Your task to perform on an android device: turn off notifications settings in the gmail app Image 0: 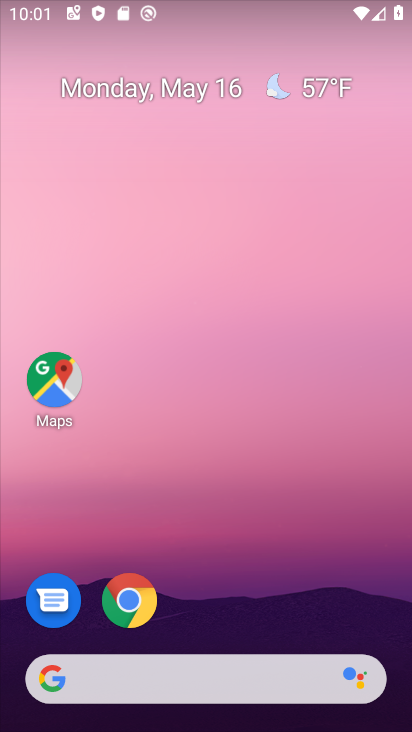
Step 0: drag from (372, 636) to (305, 53)
Your task to perform on an android device: turn off notifications settings in the gmail app Image 1: 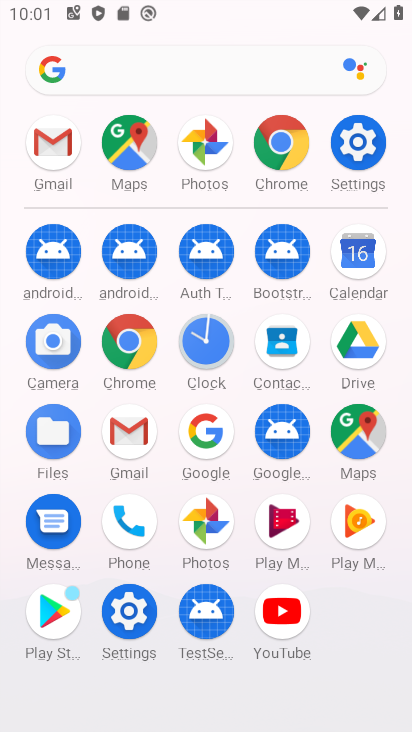
Step 1: click (344, 158)
Your task to perform on an android device: turn off notifications settings in the gmail app Image 2: 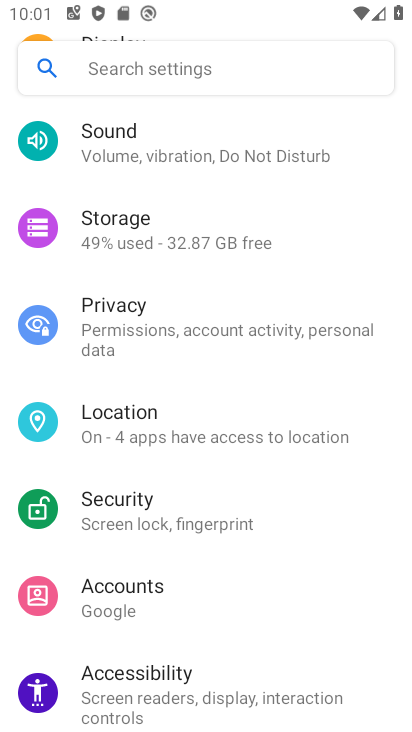
Step 2: drag from (257, 207) to (302, 650)
Your task to perform on an android device: turn off notifications settings in the gmail app Image 3: 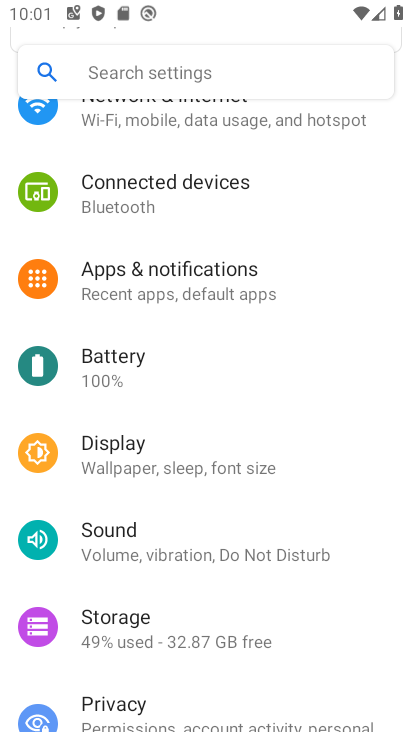
Step 3: click (242, 276)
Your task to perform on an android device: turn off notifications settings in the gmail app Image 4: 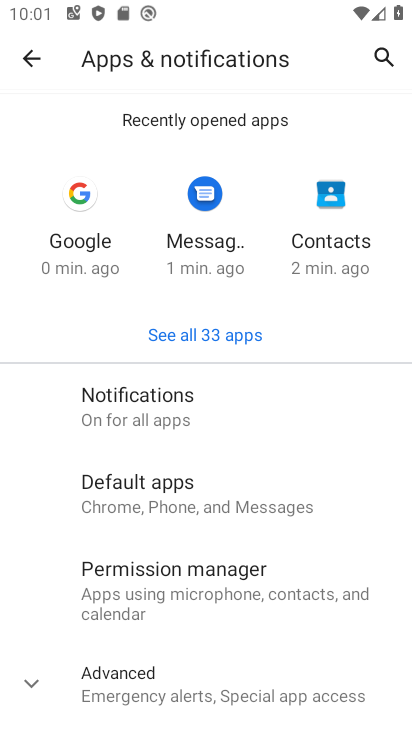
Step 4: click (208, 401)
Your task to perform on an android device: turn off notifications settings in the gmail app Image 5: 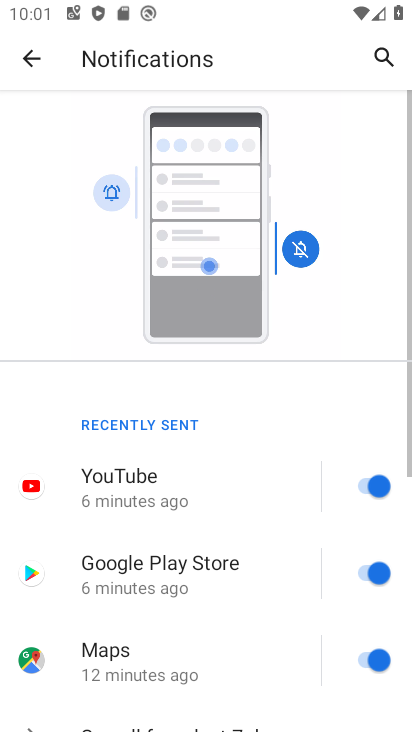
Step 5: click (369, 496)
Your task to perform on an android device: turn off notifications settings in the gmail app Image 6: 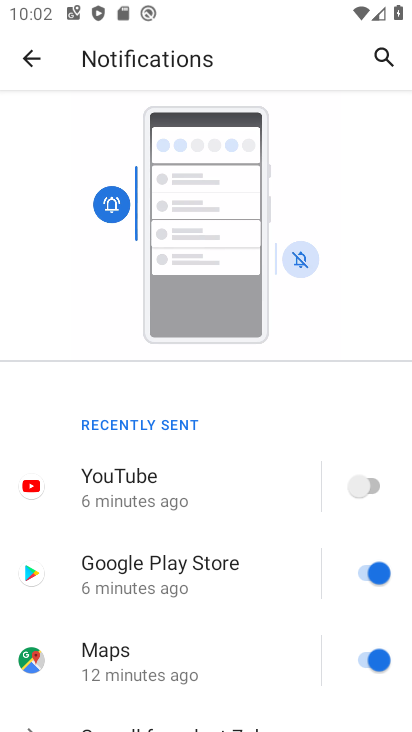
Step 6: task complete